Your task to perform on an android device: What's the weather going to be tomorrow? Image 0: 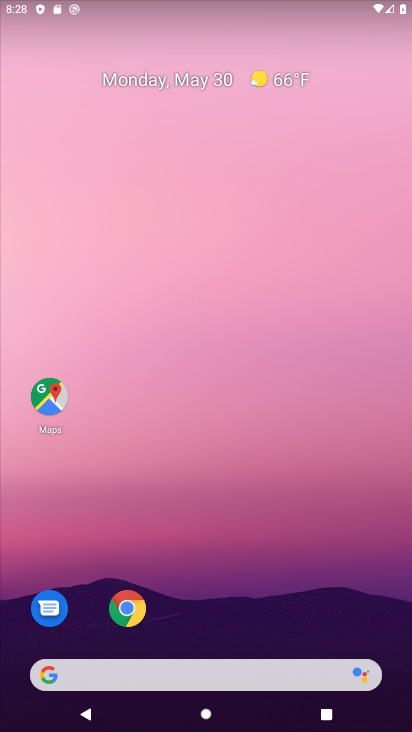
Step 0: drag from (229, 726) to (229, 578)
Your task to perform on an android device: What's the weather going to be tomorrow? Image 1: 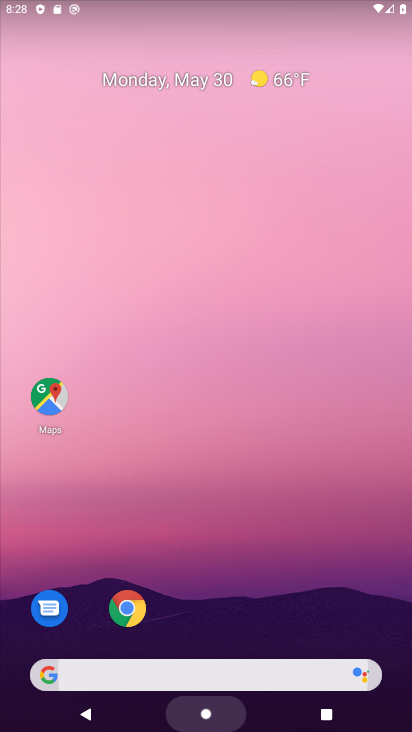
Step 1: click (222, 37)
Your task to perform on an android device: What's the weather going to be tomorrow? Image 2: 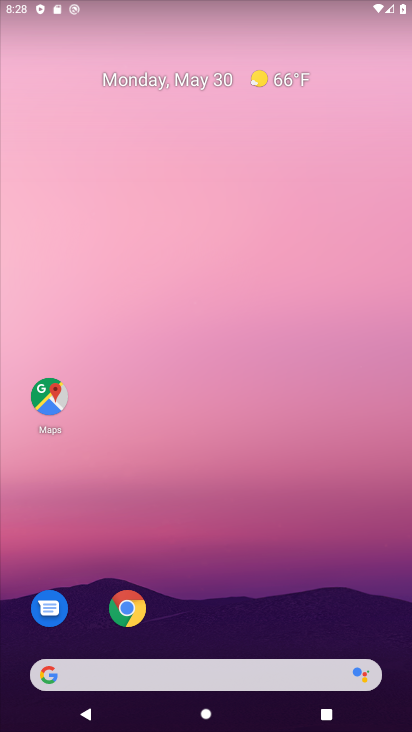
Step 2: drag from (227, 725) to (237, 452)
Your task to perform on an android device: What's the weather going to be tomorrow? Image 3: 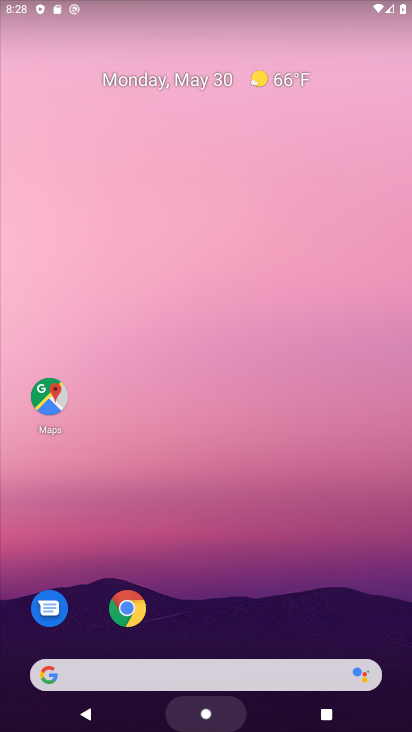
Step 3: click (238, 86)
Your task to perform on an android device: What's the weather going to be tomorrow? Image 4: 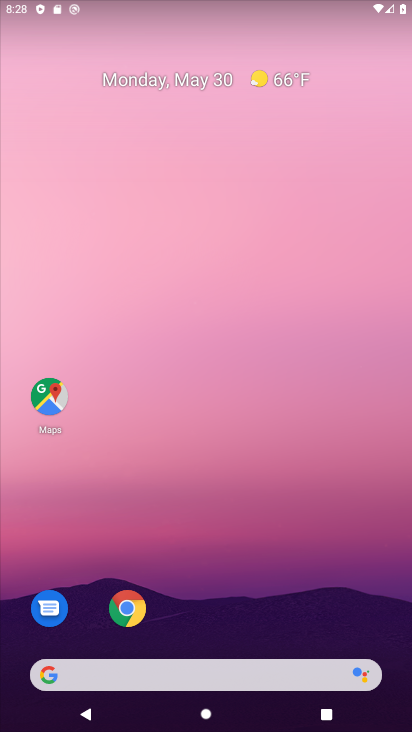
Step 4: drag from (235, 731) to (235, 547)
Your task to perform on an android device: What's the weather going to be tomorrow? Image 5: 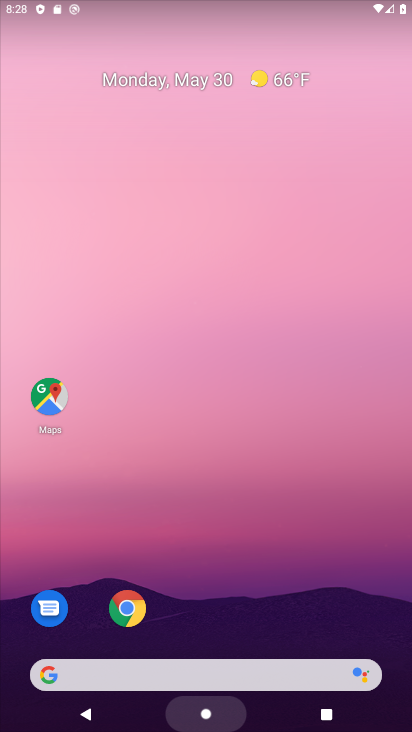
Step 5: click (235, 6)
Your task to perform on an android device: What's the weather going to be tomorrow? Image 6: 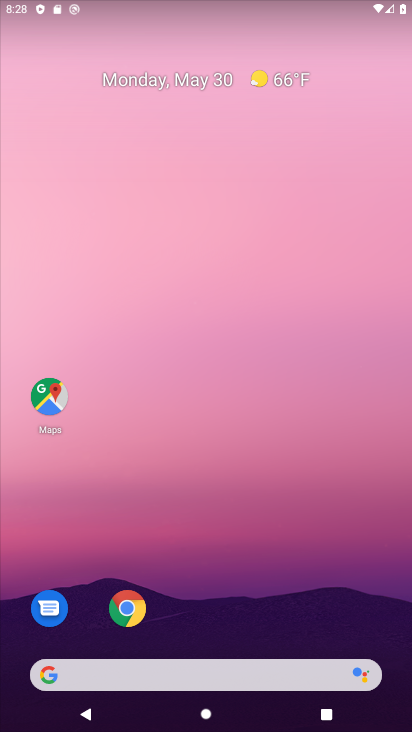
Step 6: drag from (226, 730) to (226, 529)
Your task to perform on an android device: What's the weather going to be tomorrow? Image 7: 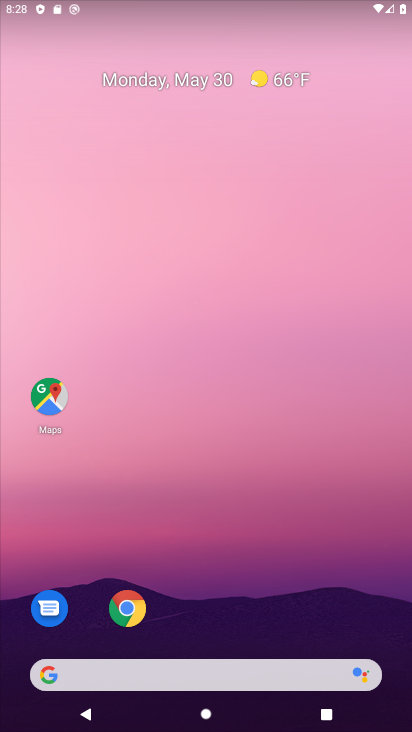
Step 7: drag from (221, 722) to (223, 651)
Your task to perform on an android device: What's the weather going to be tomorrow? Image 8: 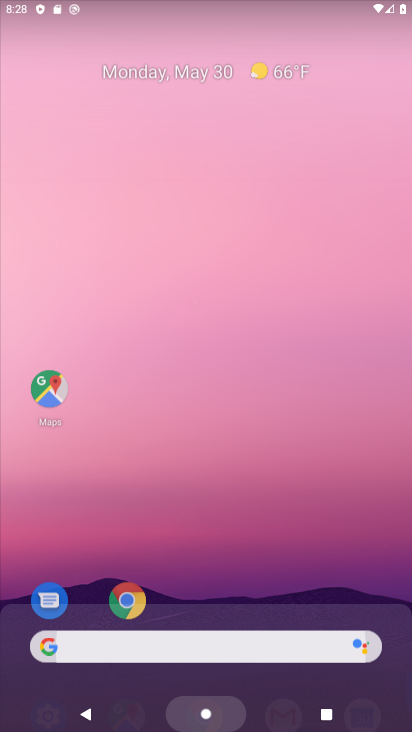
Step 8: drag from (223, 348) to (228, 78)
Your task to perform on an android device: What's the weather going to be tomorrow? Image 9: 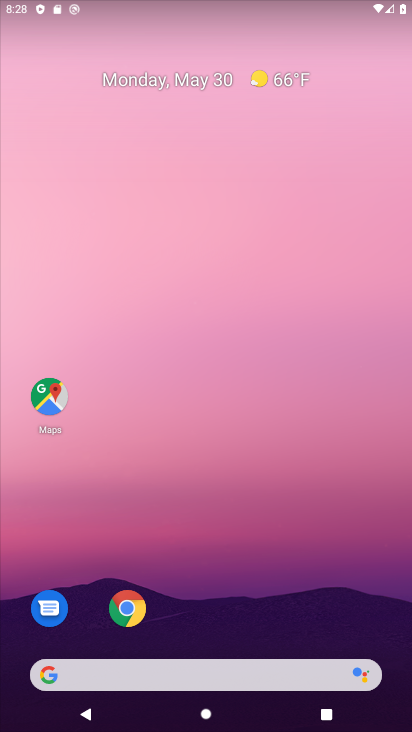
Step 9: drag from (240, 725) to (231, 9)
Your task to perform on an android device: What's the weather going to be tomorrow? Image 10: 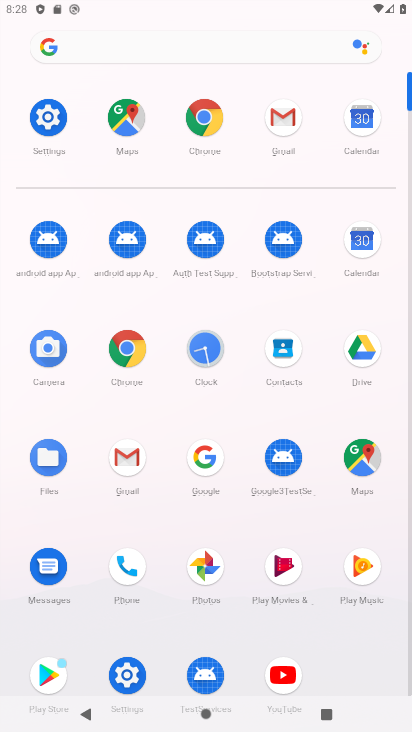
Step 10: click (201, 460)
Your task to perform on an android device: What's the weather going to be tomorrow? Image 11: 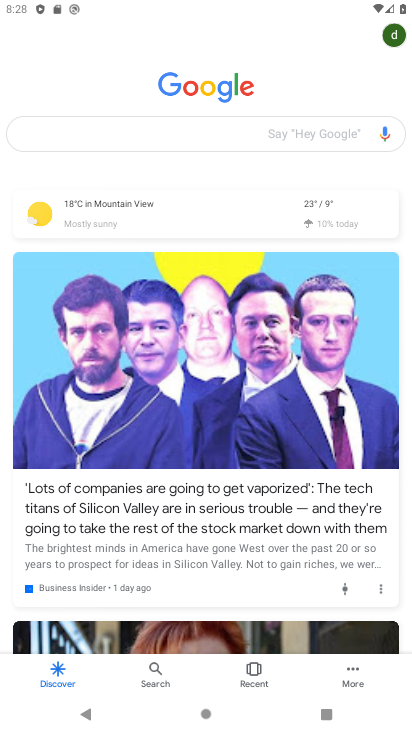
Step 11: click (89, 209)
Your task to perform on an android device: What's the weather going to be tomorrow? Image 12: 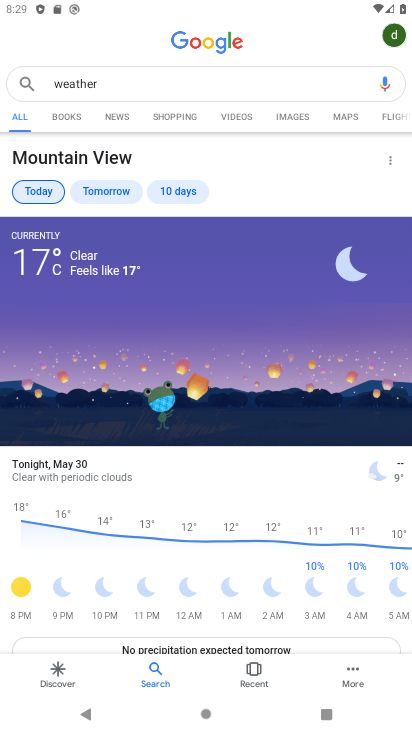
Step 12: click (109, 187)
Your task to perform on an android device: What's the weather going to be tomorrow? Image 13: 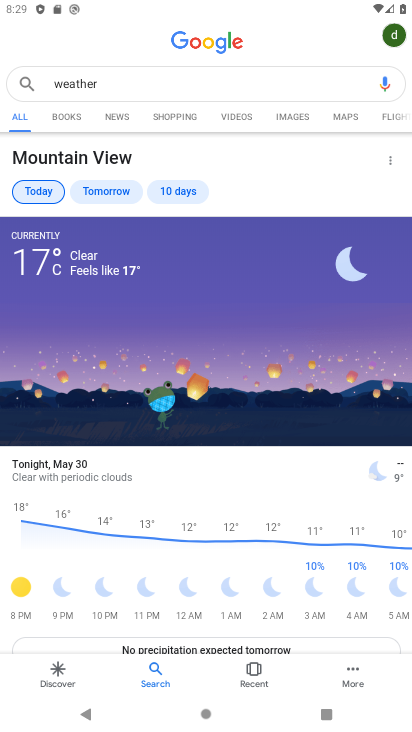
Step 13: click (110, 189)
Your task to perform on an android device: What's the weather going to be tomorrow? Image 14: 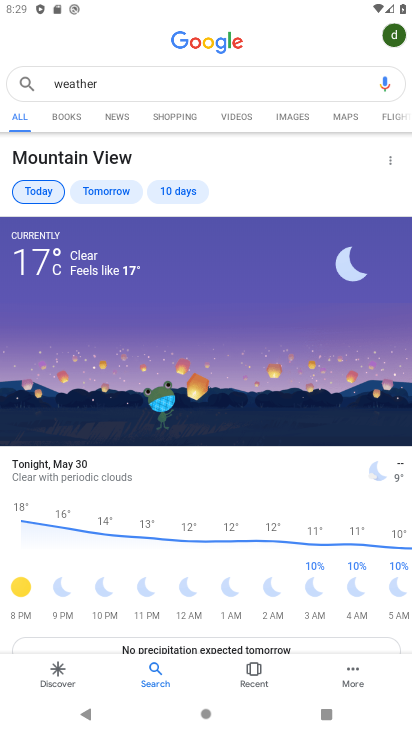
Step 14: click (110, 189)
Your task to perform on an android device: What's the weather going to be tomorrow? Image 15: 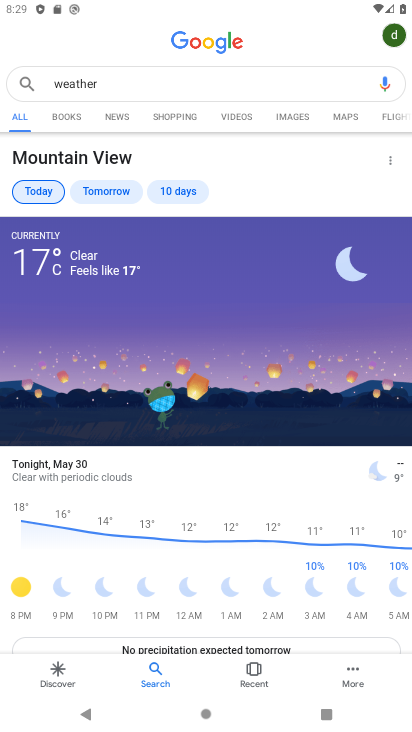
Step 15: click (126, 219)
Your task to perform on an android device: What's the weather going to be tomorrow? Image 16: 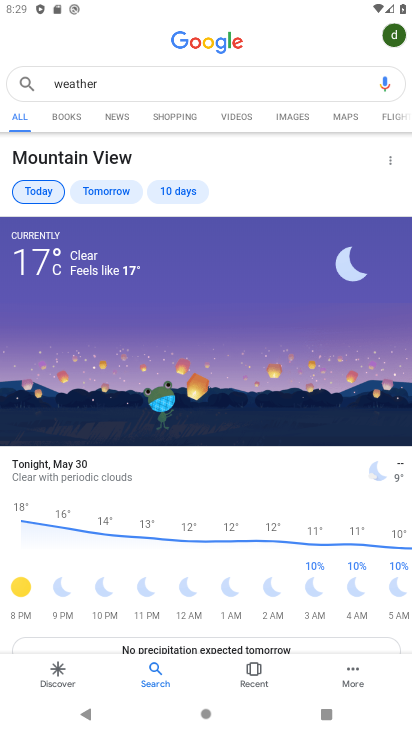
Step 16: click (257, 189)
Your task to perform on an android device: What's the weather going to be tomorrow? Image 17: 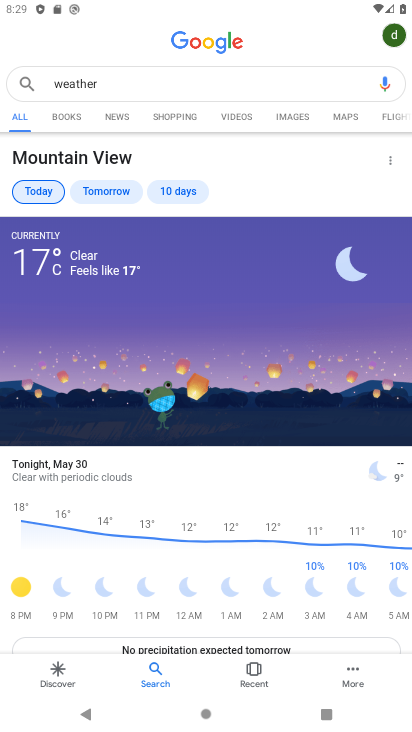
Step 17: click (184, 187)
Your task to perform on an android device: What's the weather going to be tomorrow? Image 18: 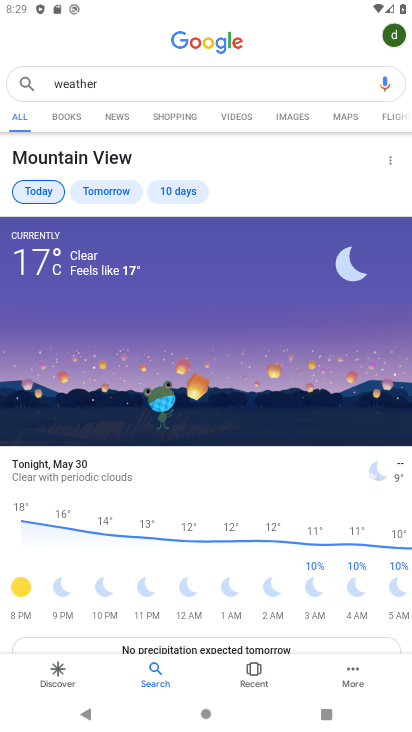
Step 18: click (182, 183)
Your task to perform on an android device: What's the weather going to be tomorrow? Image 19: 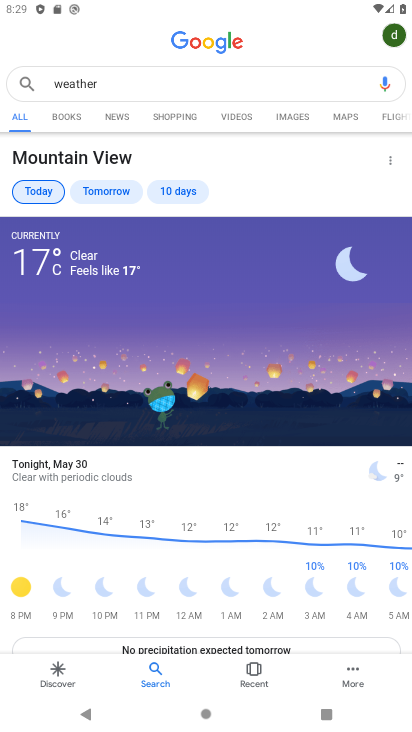
Step 19: click (92, 188)
Your task to perform on an android device: What's the weather going to be tomorrow? Image 20: 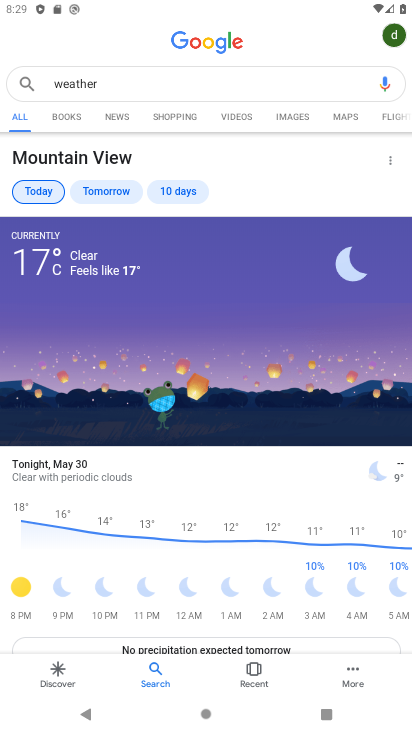
Step 20: task complete